Your task to perform on an android device: Search for "logitech g502" on amazon, select the first entry, add it to the cart, then select checkout. Image 0: 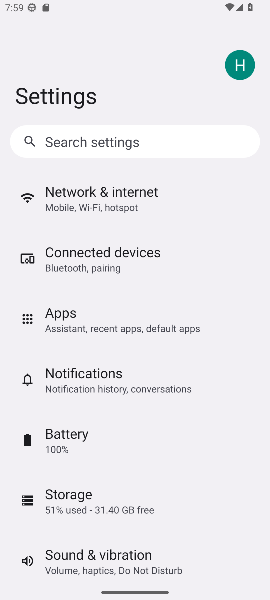
Step 0: press home button
Your task to perform on an android device: Search for "logitech g502" on amazon, select the first entry, add it to the cart, then select checkout. Image 1: 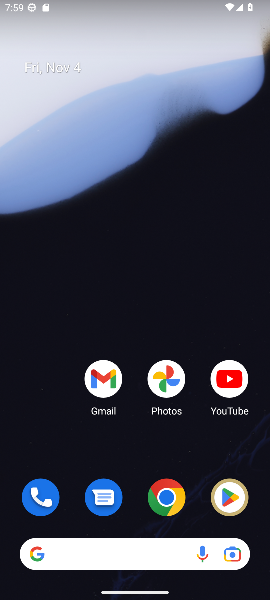
Step 1: click (163, 494)
Your task to perform on an android device: Search for "logitech g502" on amazon, select the first entry, add it to the cart, then select checkout. Image 2: 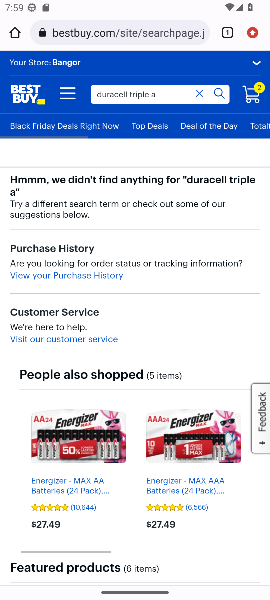
Step 2: click (88, 29)
Your task to perform on an android device: Search for "logitech g502" on amazon, select the first entry, add it to the cart, then select checkout. Image 3: 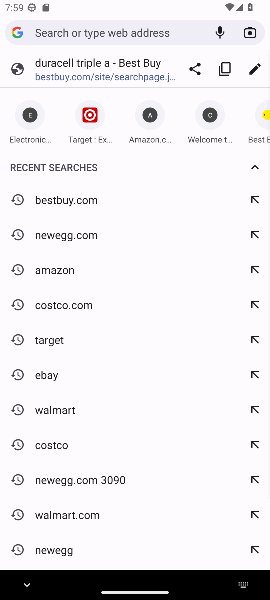
Step 3: click (63, 271)
Your task to perform on an android device: Search for "logitech g502" on amazon, select the first entry, add it to the cart, then select checkout. Image 4: 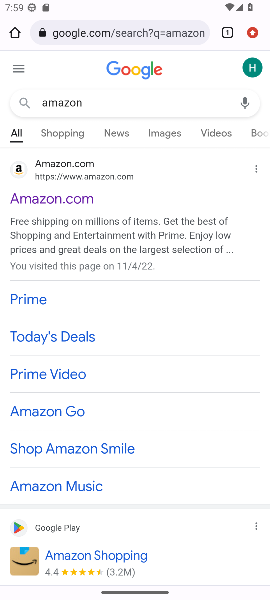
Step 4: click (57, 201)
Your task to perform on an android device: Search for "logitech g502" on amazon, select the first entry, add it to the cart, then select checkout. Image 5: 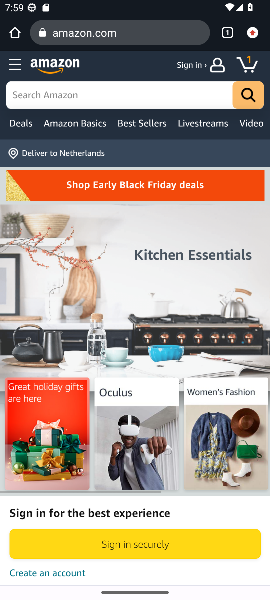
Step 5: click (70, 87)
Your task to perform on an android device: Search for "logitech g502" on amazon, select the first entry, add it to the cart, then select checkout. Image 6: 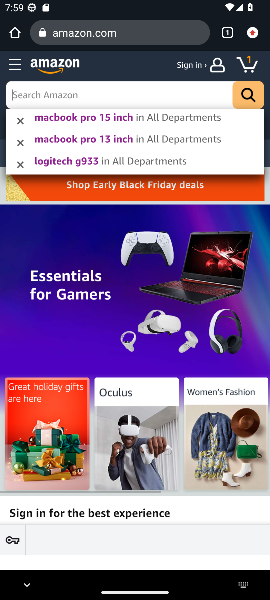
Step 6: type "logitech g502"
Your task to perform on an android device: Search for "logitech g502" on amazon, select the first entry, add it to the cart, then select checkout. Image 7: 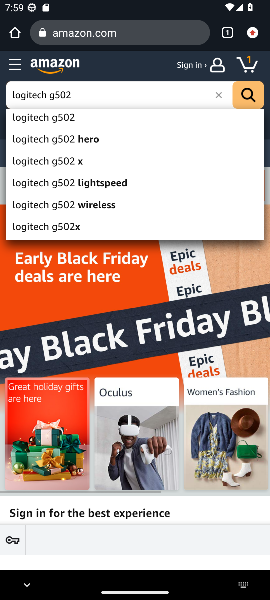
Step 7: click (33, 117)
Your task to perform on an android device: Search for "logitech g502" on amazon, select the first entry, add it to the cart, then select checkout. Image 8: 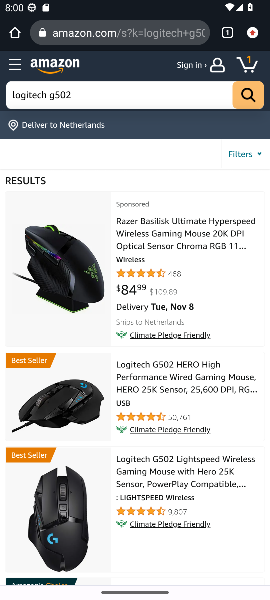
Step 8: task complete